Your task to perform on an android device: Go to sound settings Image 0: 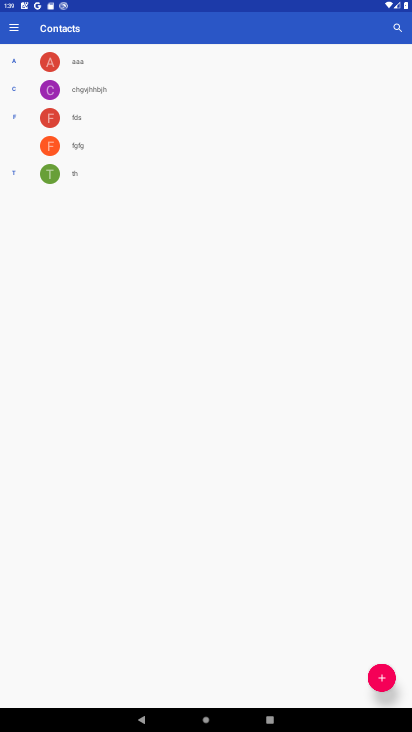
Step 0: press home button
Your task to perform on an android device: Go to sound settings Image 1: 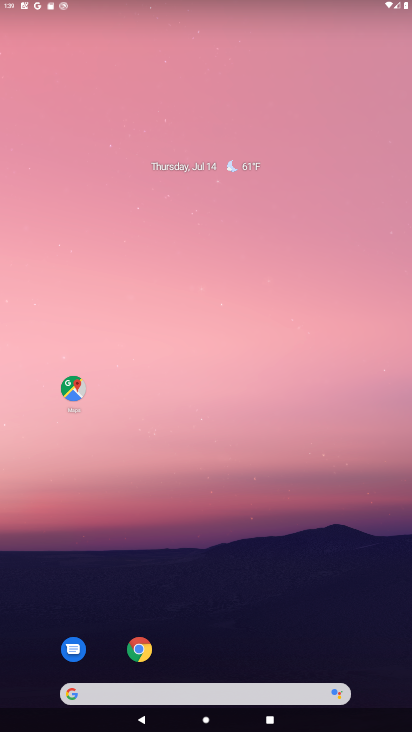
Step 1: drag from (122, 673) to (232, 15)
Your task to perform on an android device: Go to sound settings Image 2: 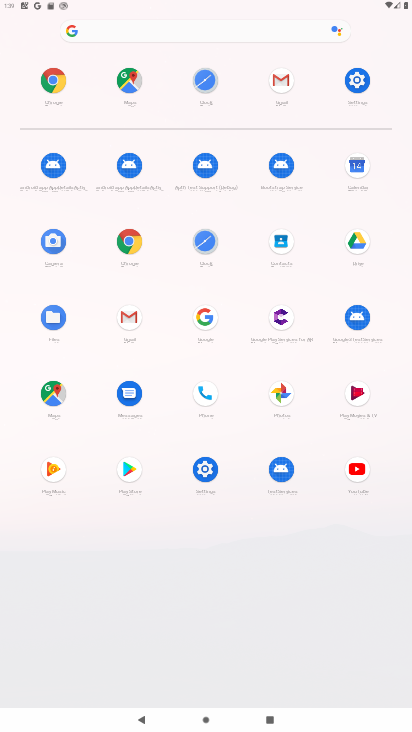
Step 2: click (360, 89)
Your task to perform on an android device: Go to sound settings Image 3: 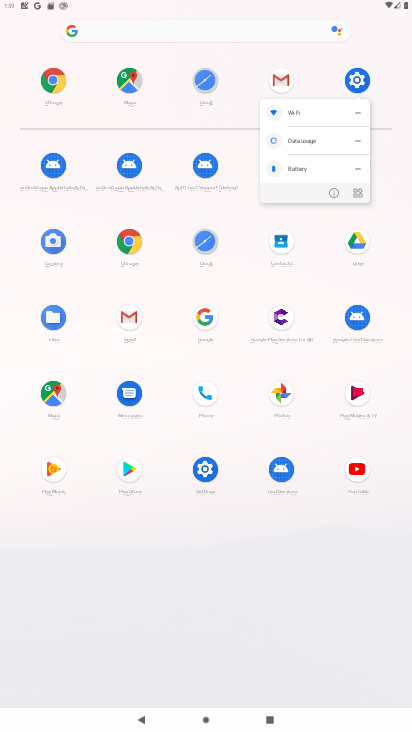
Step 3: click (358, 79)
Your task to perform on an android device: Go to sound settings Image 4: 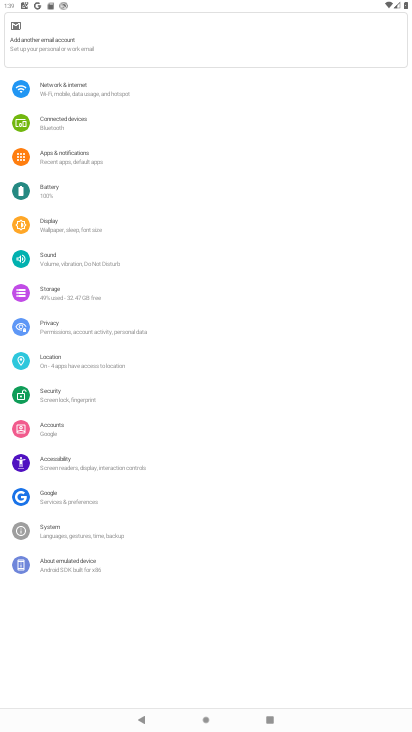
Step 4: click (67, 263)
Your task to perform on an android device: Go to sound settings Image 5: 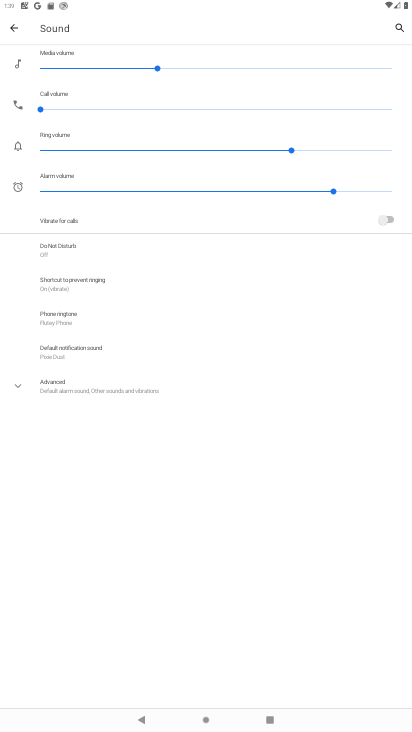
Step 5: task complete